Your task to perform on an android device: turn off smart reply in the gmail app Image 0: 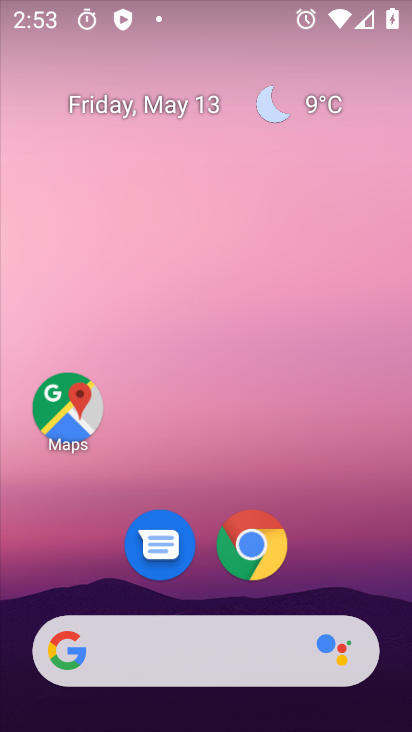
Step 0: drag from (254, 545) to (303, 453)
Your task to perform on an android device: turn off smart reply in the gmail app Image 1: 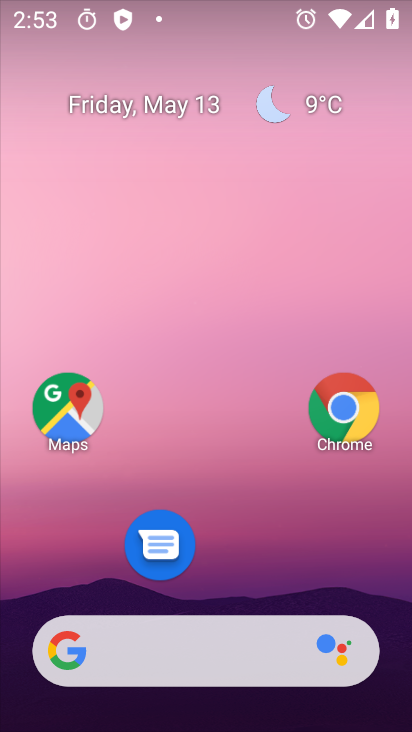
Step 1: drag from (328, 504) to (326, 67)
Your task to perform on an android device: turn off smart reply in the gmail app Image 2: 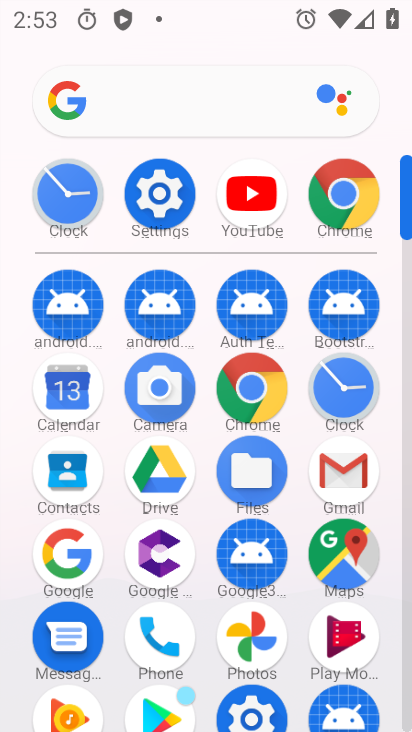
Step 2: click (335, 474)
Your task to perform on an android device: turn off smart reply in the gmail app Image 3: 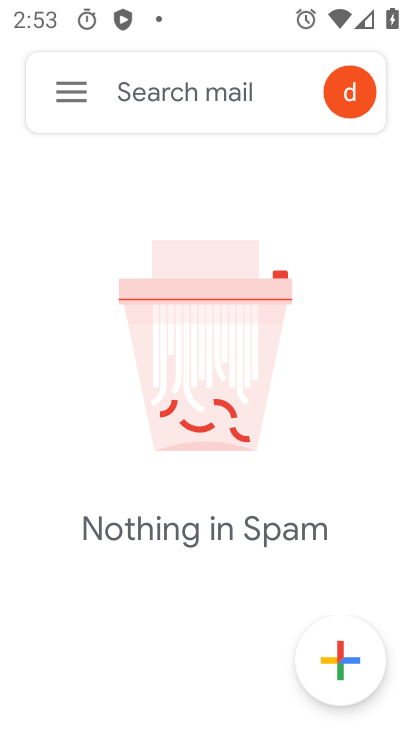
Step 3: click (66, 94)
Your task to perform on an android device: turn off smart reply in the gmail app Image 4: 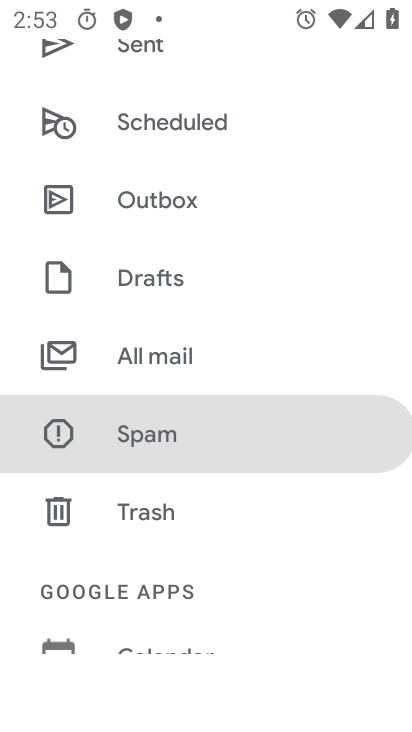
Step 4: drag from (275, 503) to (269, 126)
Your task to perform on an android device: turn off smart reply in the gmail app Image 5: 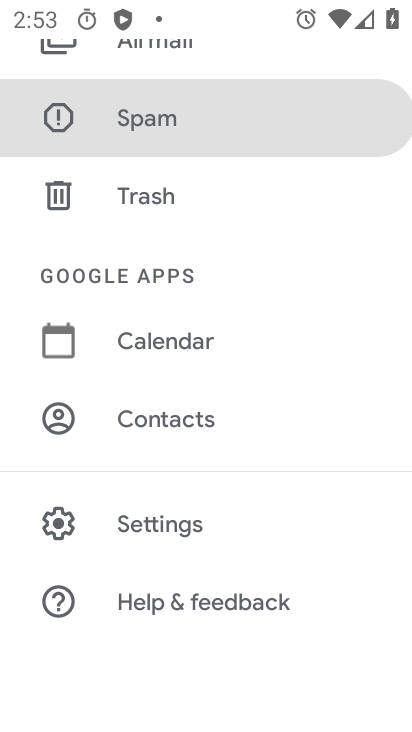
Step 5: click (160, 532)
Your task to perform on an android device: turn off smart reply in the gmail app Image 6: 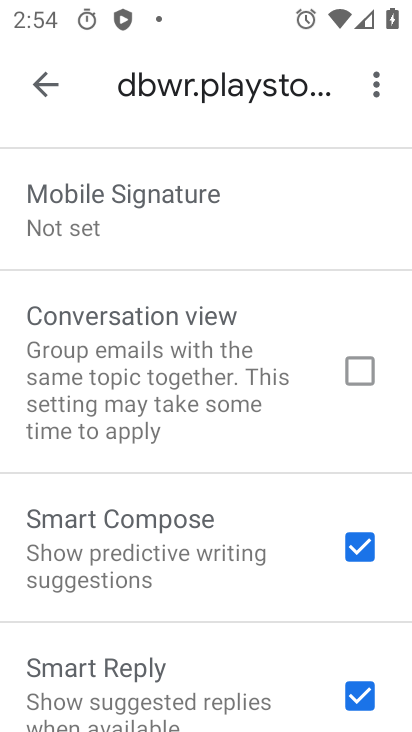
Step 6: click (367, 697)
Your task to perform on an android device: turn off smart reply in the gmail app Image 7: 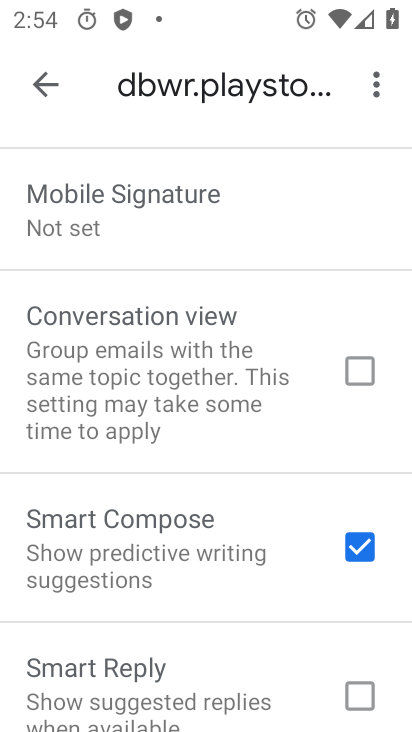
Step 7: task complete